Your task to perform on an android device: turn off improve location accuracy Image 0: 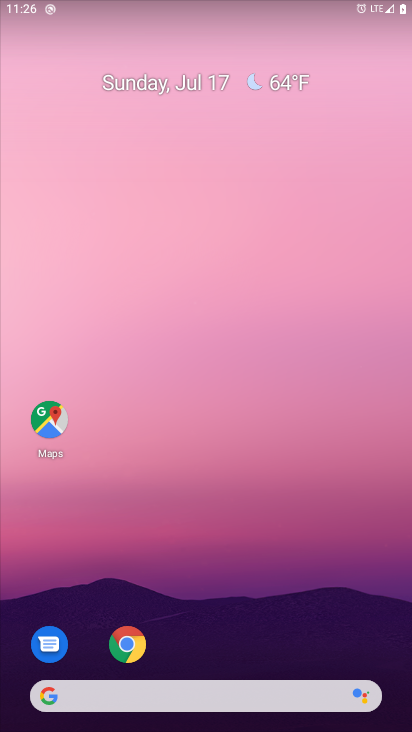
Step 0: press home button
Your task to perform on an android device: turn off improve location accuracy Image 1: 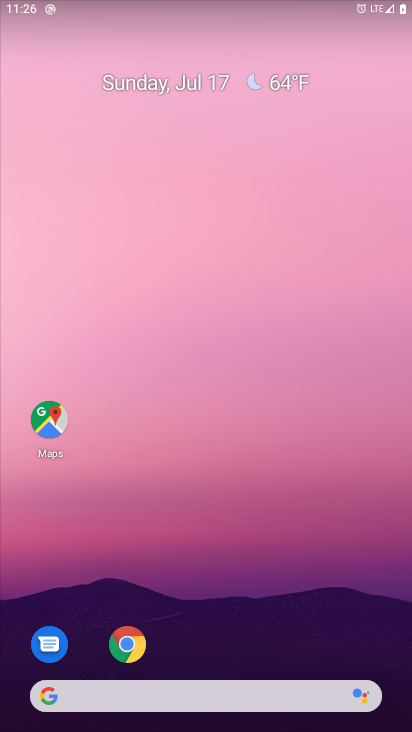
Step 1: drag from (334, 518) to (316, 203)
Your task to perform on an android device: turn off improve location accuracy Image 2: 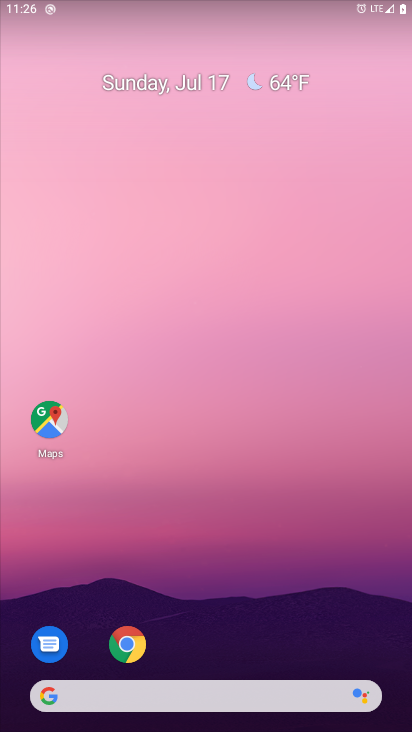
Step 2: drag from (201, 628) to (240, 110)
Your task to perform on an android device: turn off improve location accuracy Image 3: 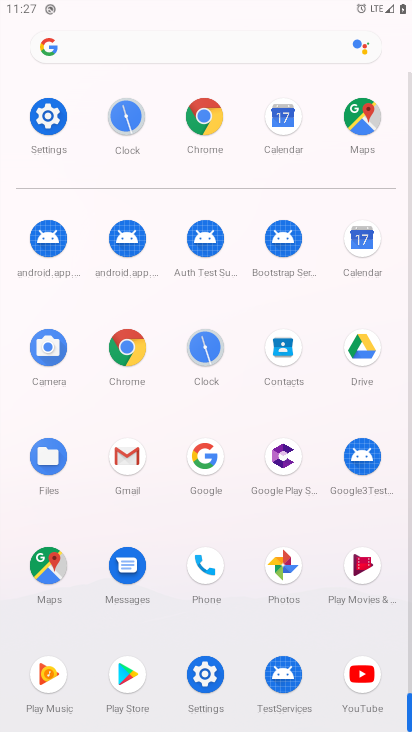
Step 3: click (43, 115)
Your task to perform on an android device: turn off improve location accuracy Image 4: 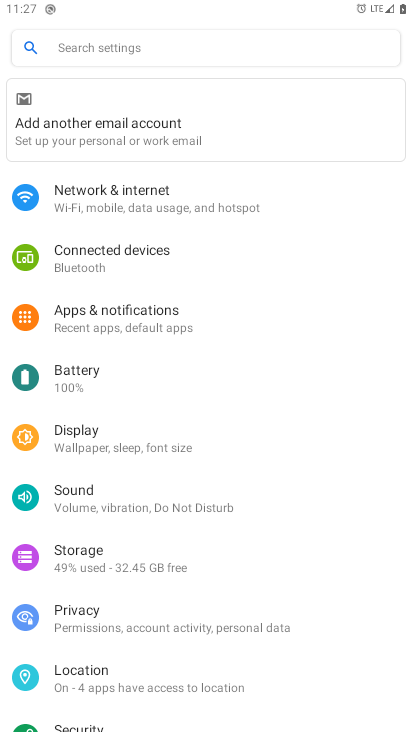
Step 4: click (106, 669)
Your task to perform on an android device: turn off improve location accuracy Image 5: 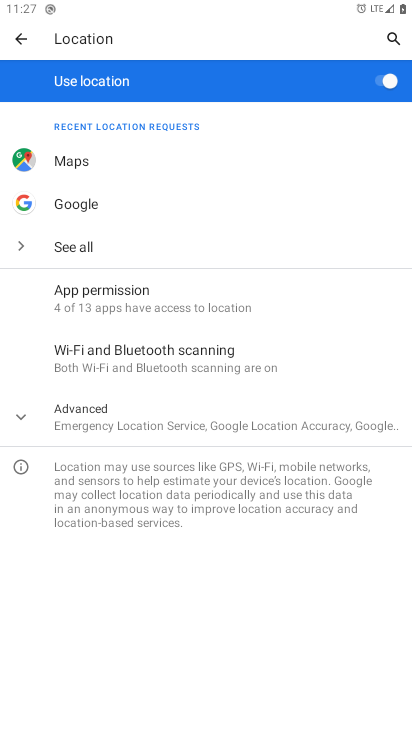
Step 5: click (20, 417)
Your task to perform on an android device: turn off improve location accuracy Image 6: 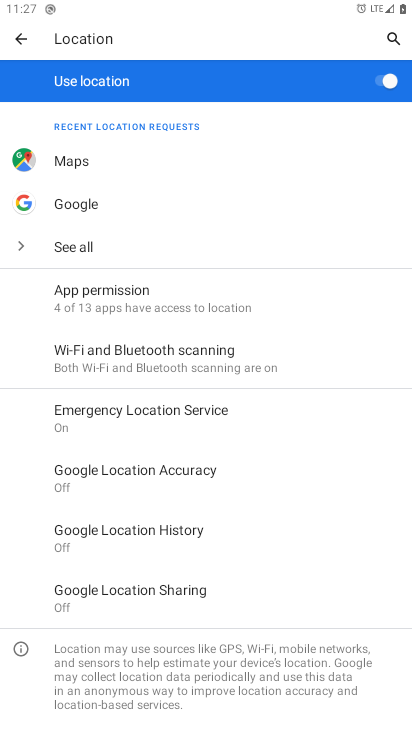
Step 6: click (174, 477)
Your task to perform on an android device: turn off improve location accuracy Image 7: 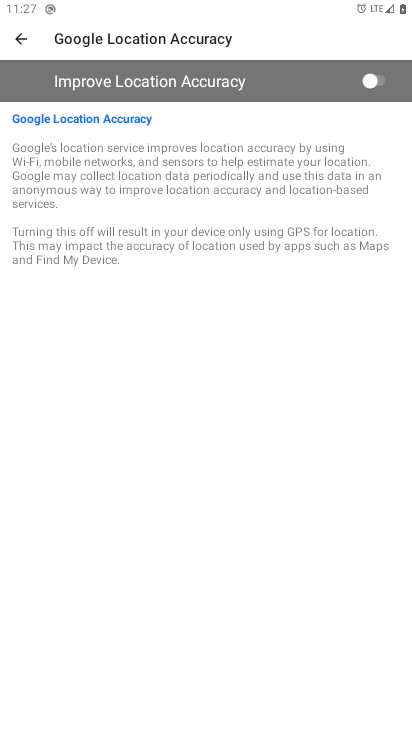
Step 7: task complete